Your task to perform on an android device: change the clock style Image 0: 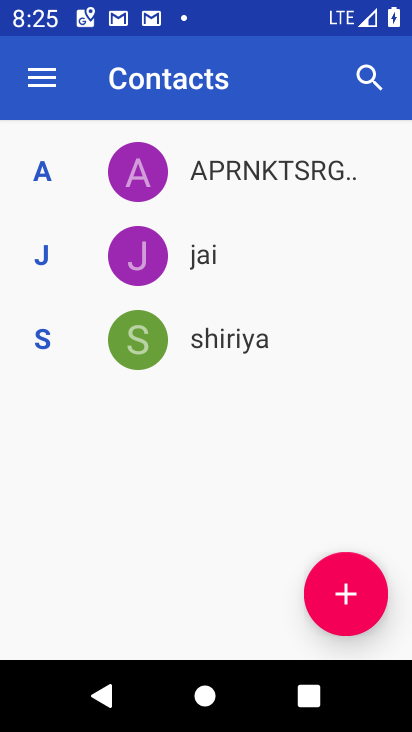
Step 0: press home button
Your task to perform on an android device: change the clock style Image 1: 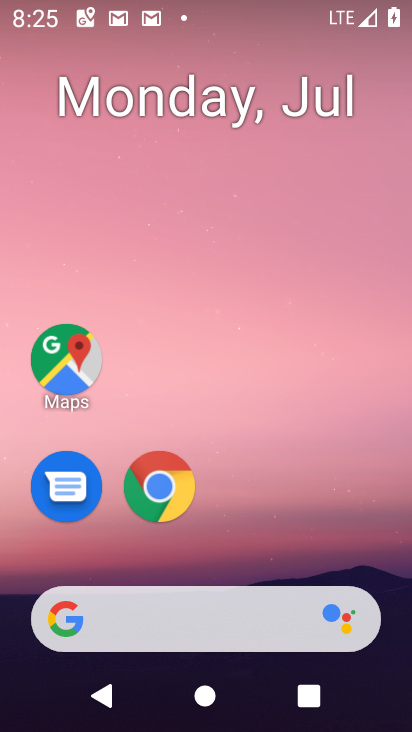
Step 1: drag from (381, 561) to (364, 159)
Your task to perform on an android device: change the clock style Image 2: 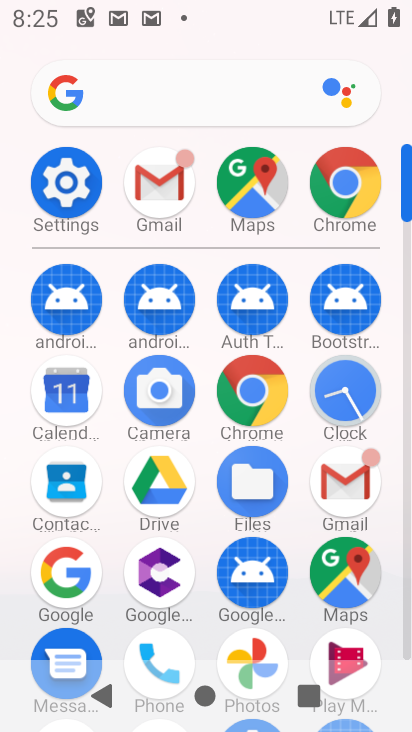
Step 2: click (342, 393)
Your task to perform on an android device: change the clock style Image 3: 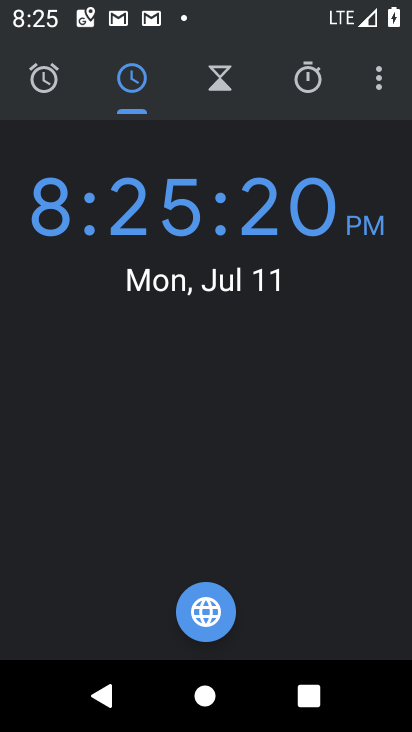
Step 3: click (376, 86)
Your task to perform on an android device: change the clock style Image 4: 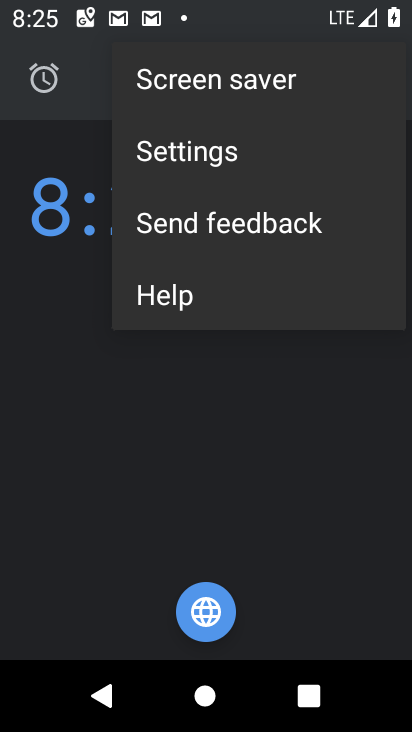
Step 4: click (322, 160)
Your task to perform on an android device: change the clock style Image 5: 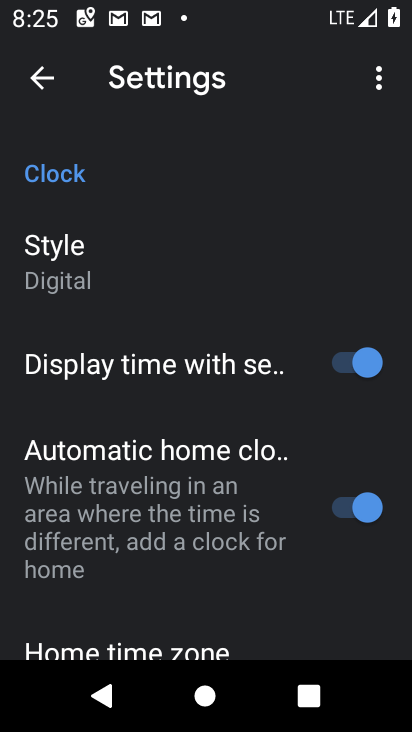
Step 5: drag from (285, 433) to (290, 332)
Your task to perform on an android device: change the clock style Image 6: 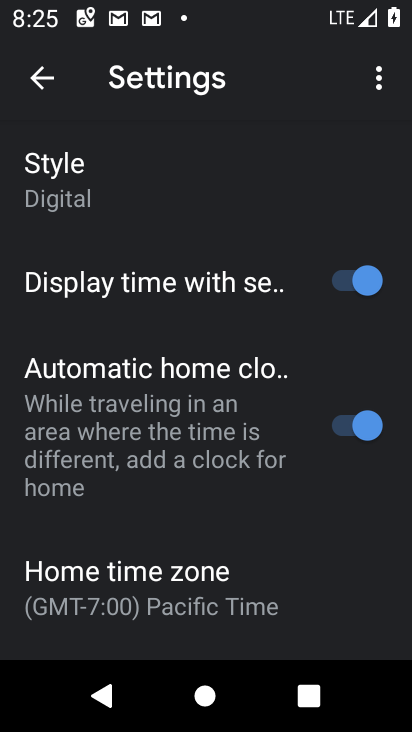
Step 6: drag from (290, 486) to (294, 339)
Your task to perform on an android device: change the clock style Image 7: 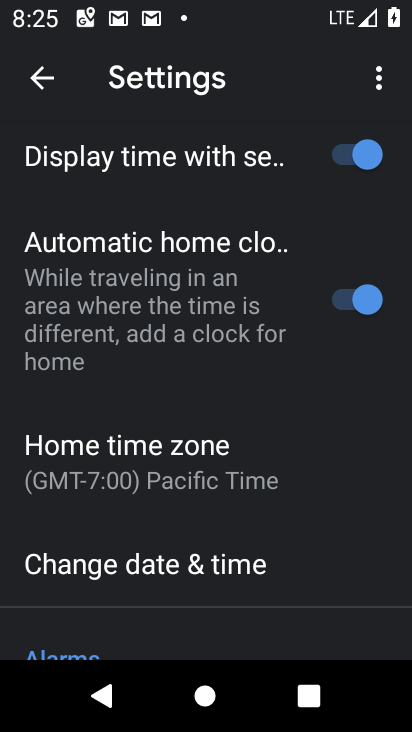
Step 7: drag from (305, 517) to (308, 365)
Your task to perform on an android device: change the clock style Image 8: 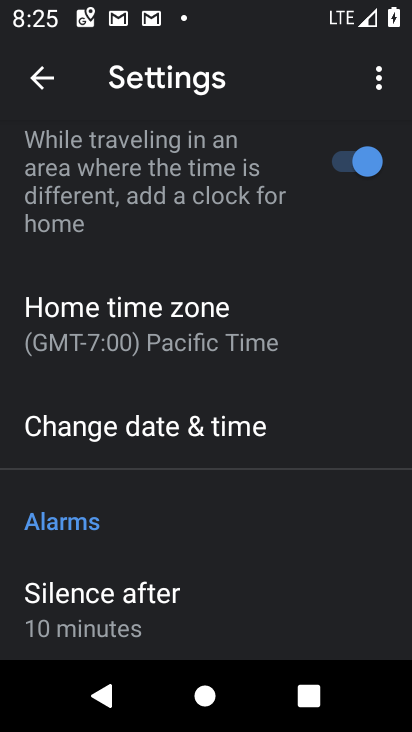
Step 8: drag from (309, 531) to (313, 315)
Your task to perform on an android device: change the clock style Image 9: 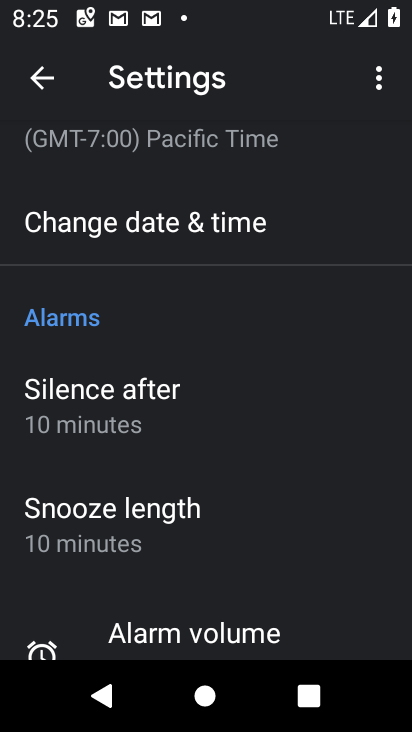
Step 9: drag from (314, 509) to (313, 360)
Your task to perform on an android device: change the clock style Image 10: 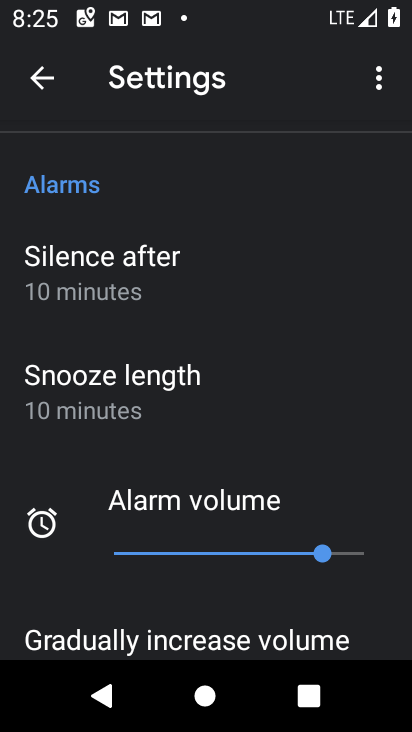
Step 10: drag from (311, 455) to (314, 249)
Your task to perform on an android device: change the clock style Image 11: 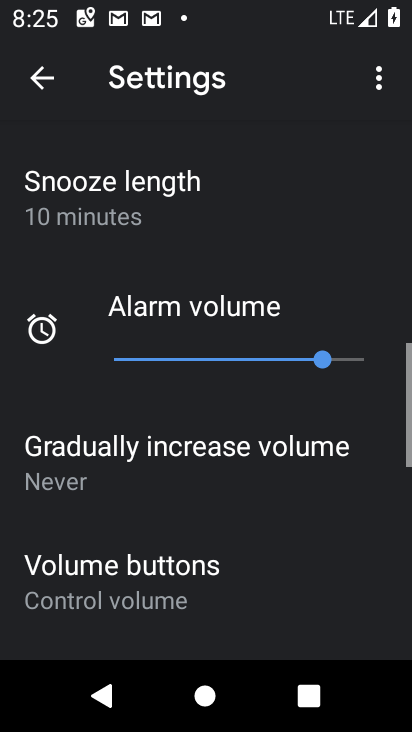
Step 11: drag from (319, 203) to (314, 419)
Your task to perform on an android device: change the clock style Image 12: 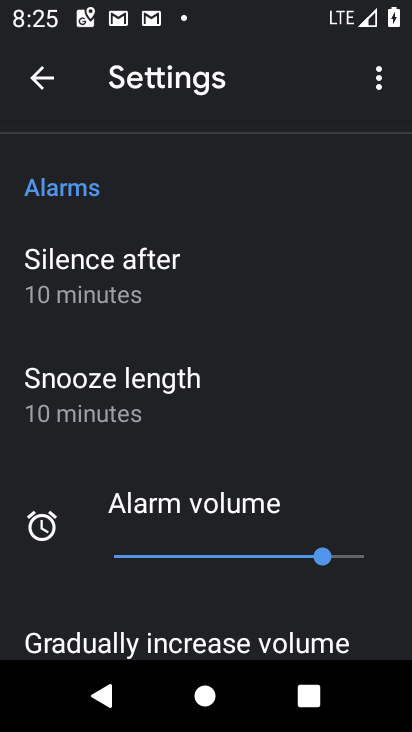
Step 12: drag from (321, 215) to (313, 428)
Your task to perform on an android device: change the clock style Image 13: 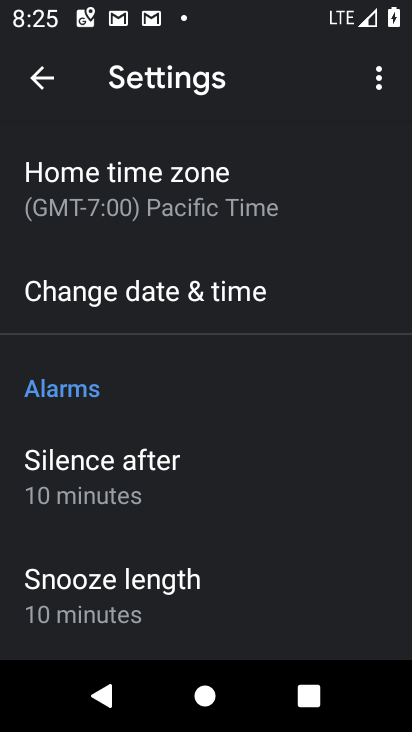
Step 13: drag from (324, 221) to (327, 370)
Your task to perform on an android device: change the clock style Image 14: 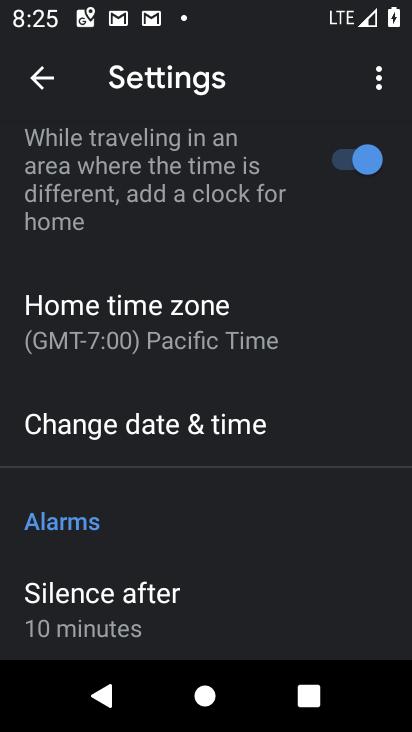
Step 14: drag from (317, 207) to (338, 452)
Your task to perform on an android device: change the clock style Image 15: 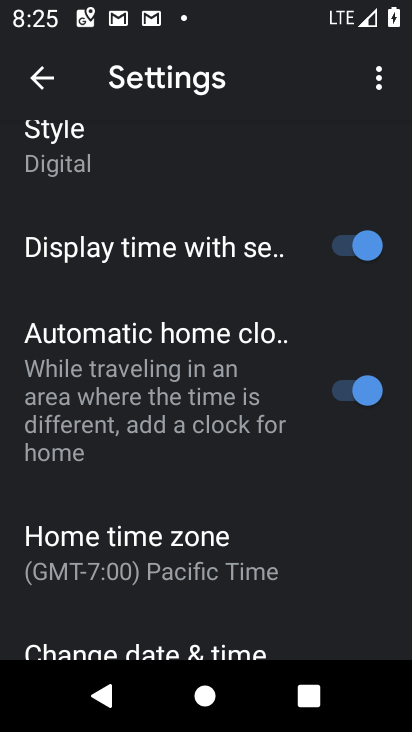
Step 15: drag from (298, 173) to (295, 361)
Your task to perform on an android device: change the clock style Image 16: 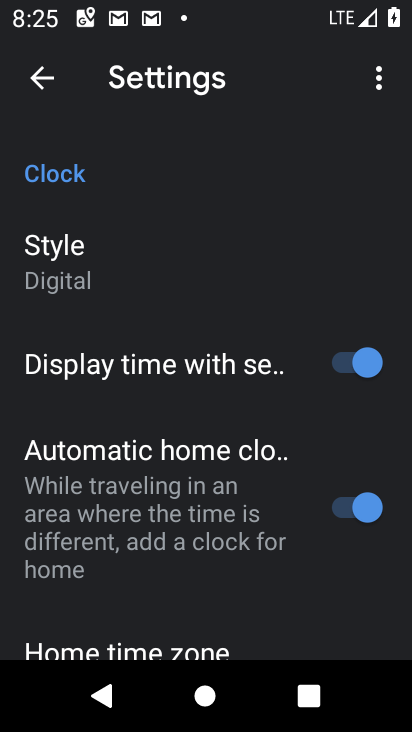
Step 16: drag from (292, 160) to (292, 324)
Your task to perform on an android device: change the clock style Image 17: 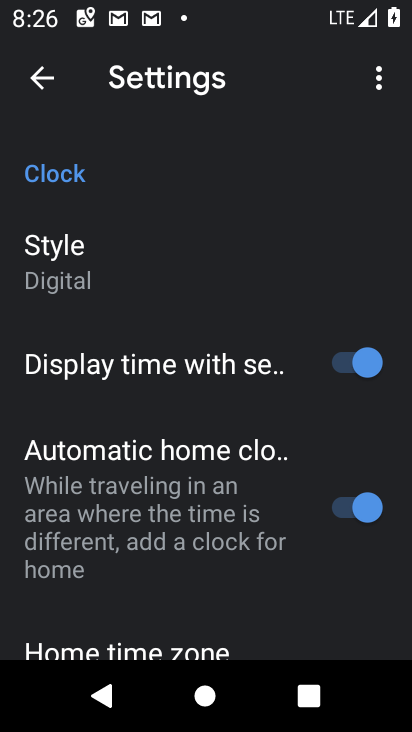
Step 17: click (141, 286)
Your task to perform on an android device: change the clock style Image 18: 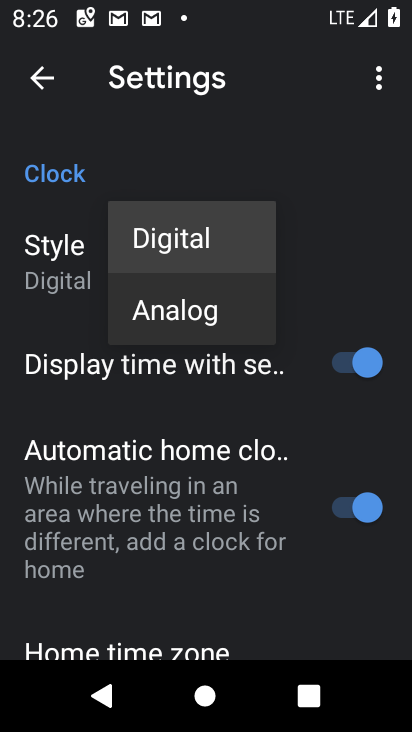
Step 18: click (218, 315)
Your task to perform on an android device: change the clock style Image 19: 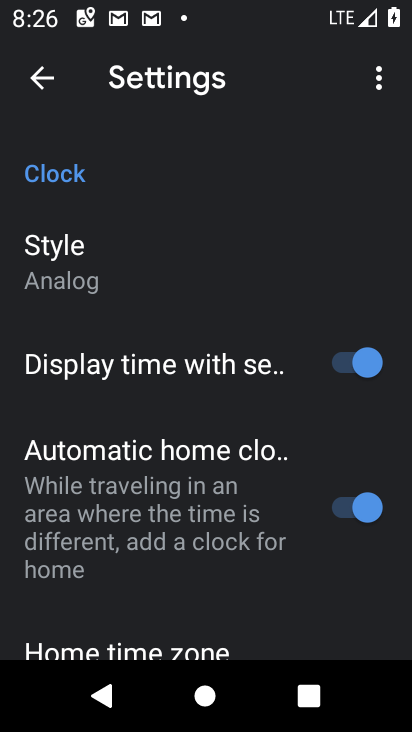
Step 19: task complete